Your task to perform on an android device: check the backup settings in the google photos Image 0: 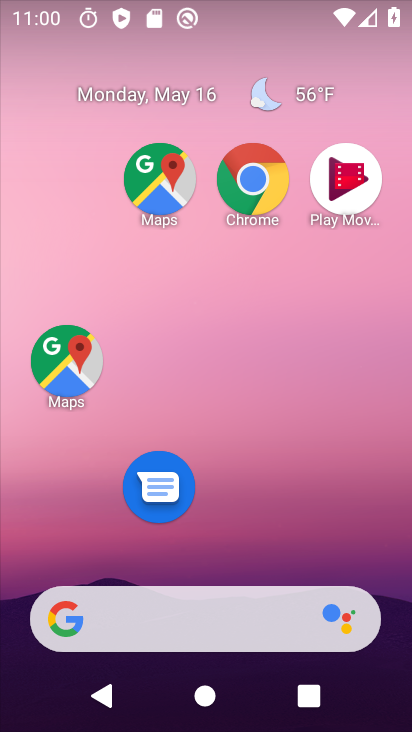
Step 0: drag from (267, 6) to (336, 54)
Your task to perform on an android device: check the backup settings in the google photos Image 1: 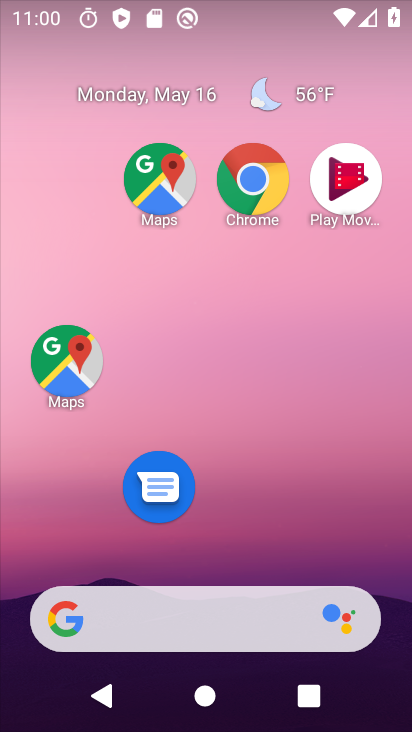
Step 1: drag from (242, 532) to (120, 14)
Your task to perform on an android device: check the backup settings in the google photos Image 2: 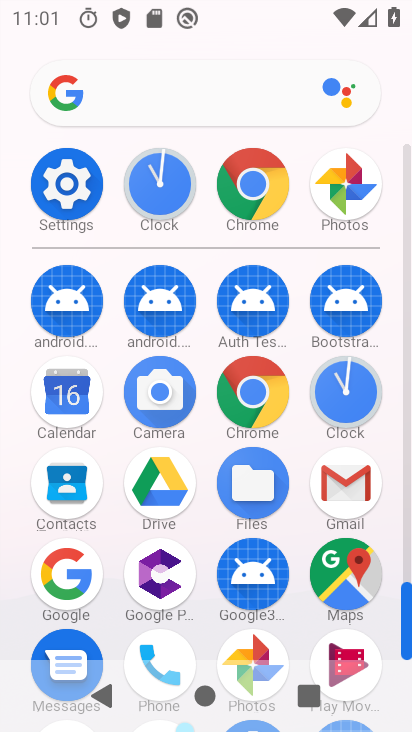
Step 2: click (255, 645)
Your task to perform on an android device: check the backup settings in the google photos Image 3: 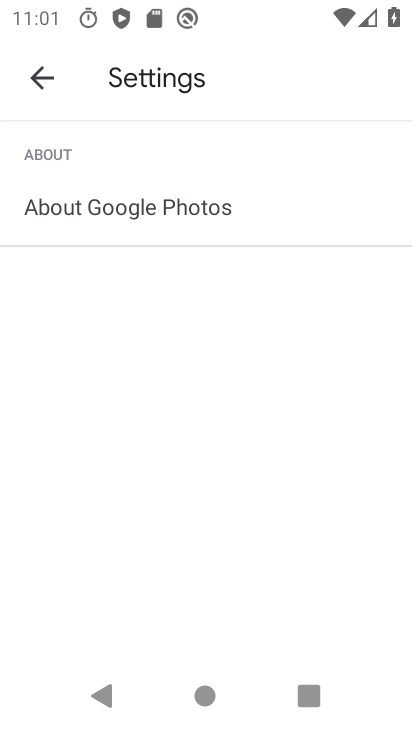
Step 3: click (41, 79)
Your task to perform on an android device: check the backup settings in the google photos Image 4: 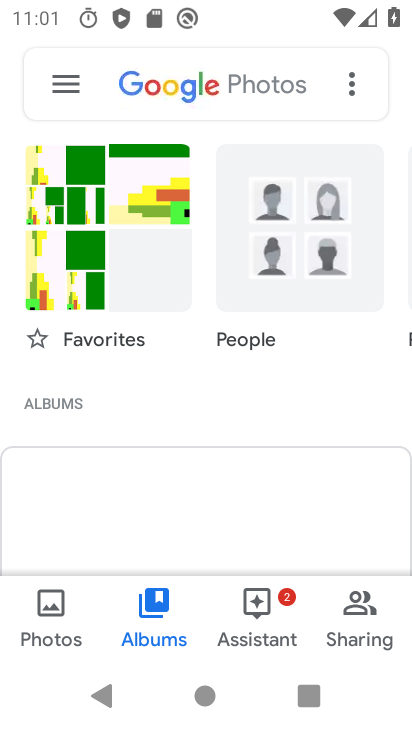
Step 4: click (47, 634)
Your task to perform on an android device: check the backup settings in the google photos Image 5: 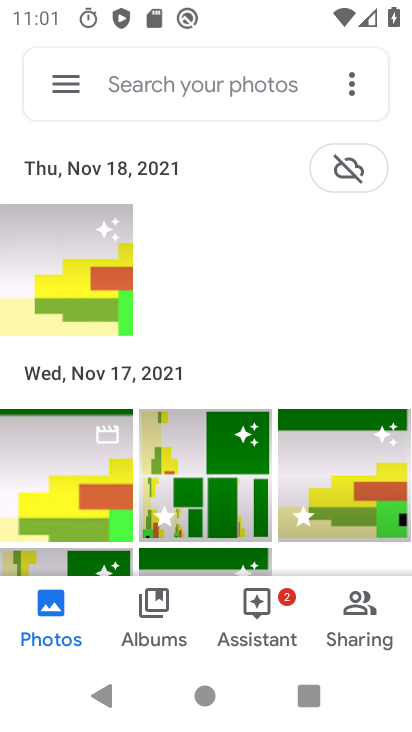
Step 5: click (64, 84)
Your task to perform on an android device: check the backup settings in the google photos Image 6: 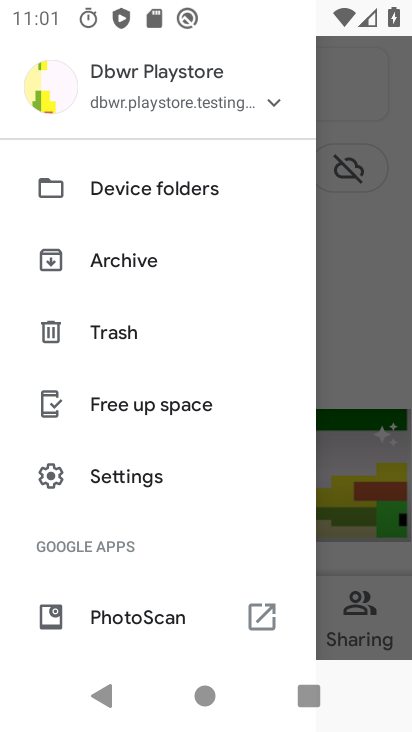
Step 6: click (135, 478)
Your task to perform on an android device: check the backup settings in the google photos Image 7: 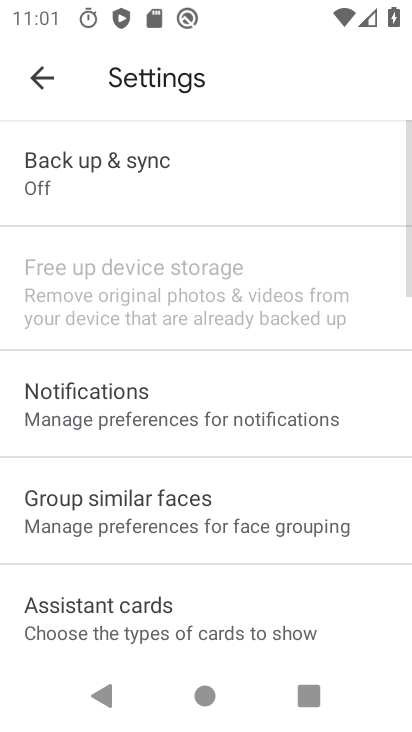
Step 7: click (46, 190)
Your task to perform on an android device: check the backup settings in the google photos Image 8: 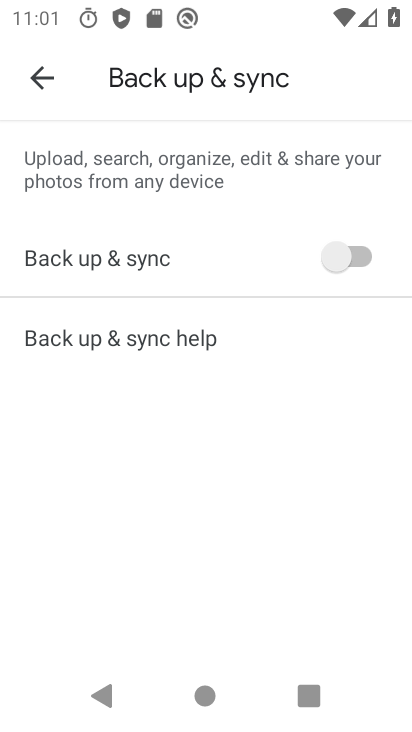
Step 8: task complete